Your task to perform on an android device: Search for vegetarian restaurants on Maps Image 0: 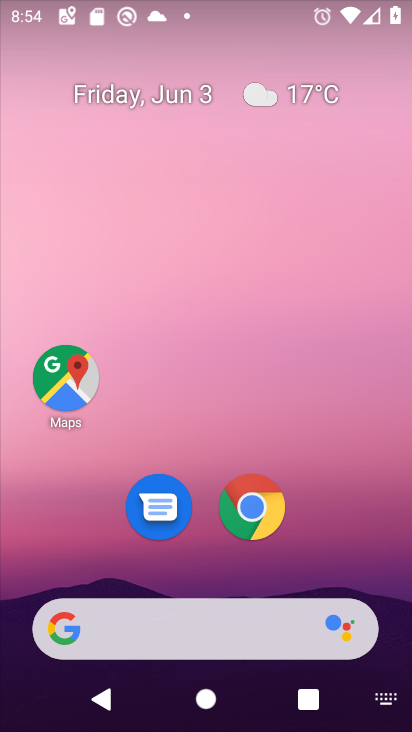
Step 0: click (86, 371)
Your task to perform on an android device: Search for vegetarian restaurants on Maps Image 1: 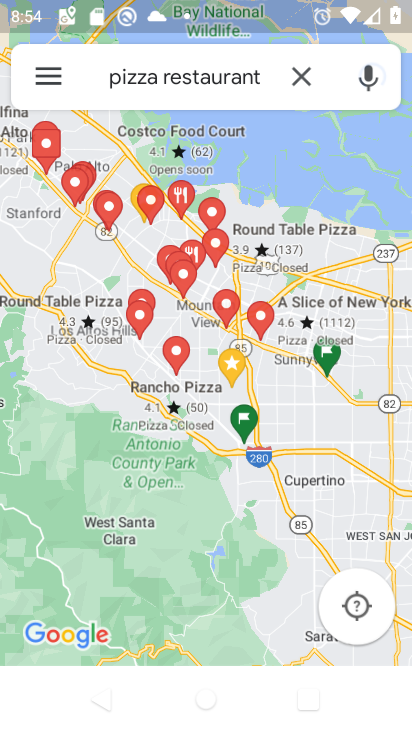
Step 1: click (239, 68)
Your task to perform on an android device: Search for vegetarian restaurants on Maps Image 2: 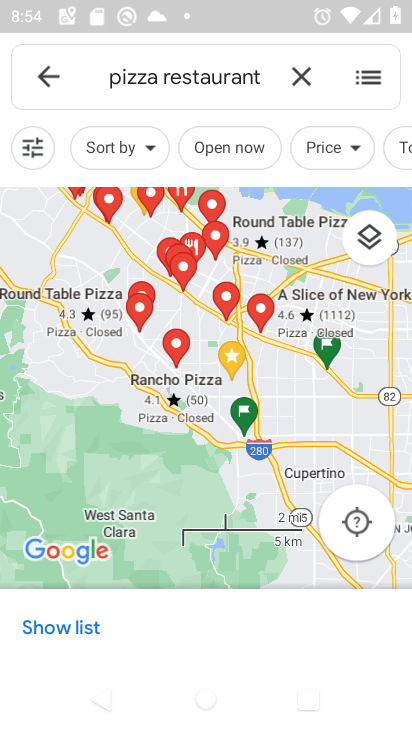
Step 2: click (299, 70)
Your task to perform on an android device: Search for vegetarian restaurants on Maps Image 3: 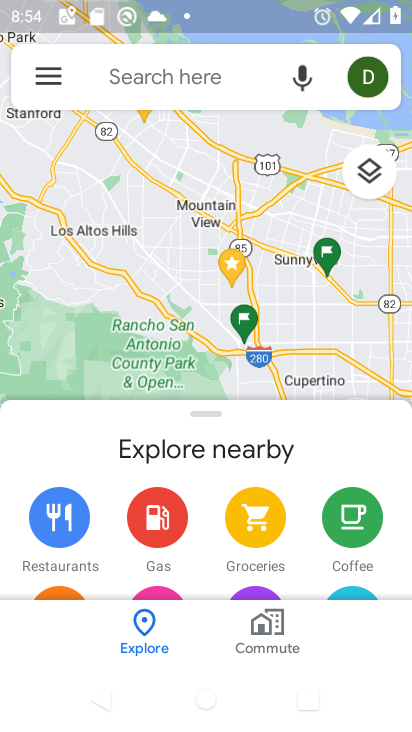
Step 3: click (202, 66)
Your task to perform on an android device: Search for vegetarian restaurants on Maps Image 4: 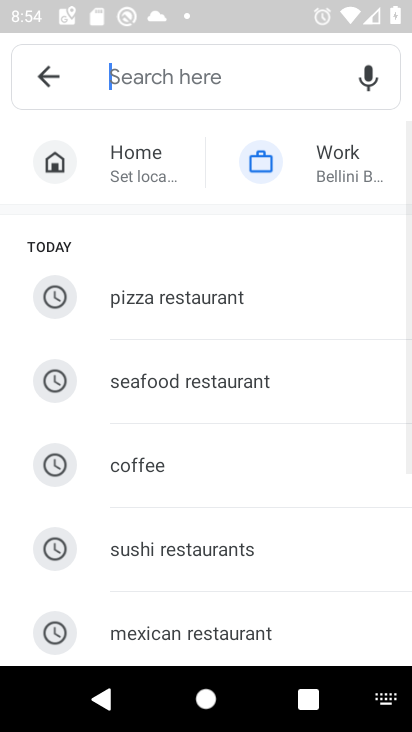
Step 4: drag from (238, 566) to (234, 120)
Your task to perform on an android device: Search for vegetarian restaurants on Maps Image 5: 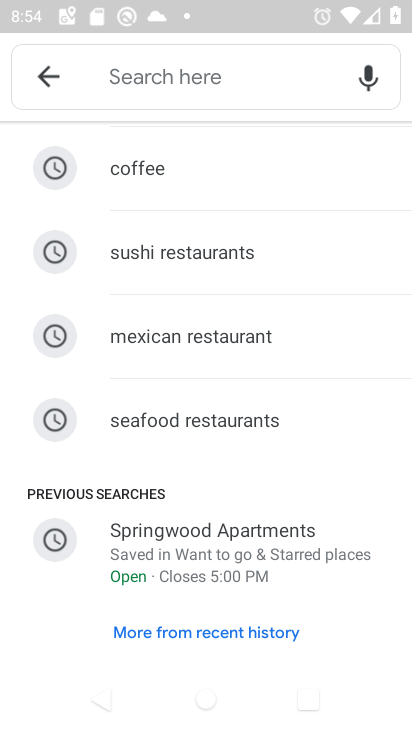
Step 5: click (206, 57)
Your task to perform on an android device: Search for vegetarian restaurants on Maps Image 6: 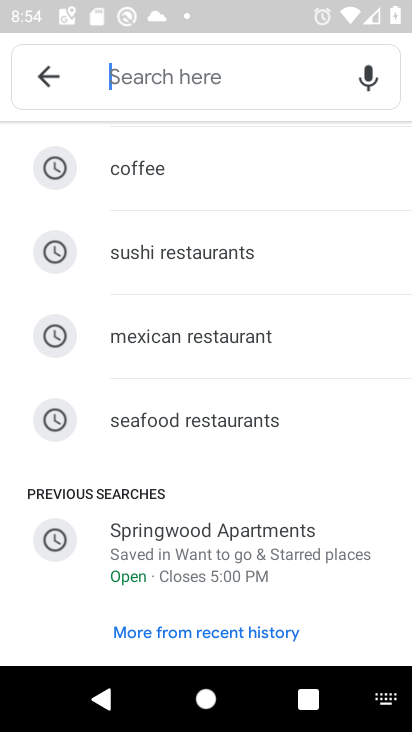
Step 6: type "vegetarian restaurants"
Your task to perform on an android device: Search for vegetarian restaurants on Maps Image 7: 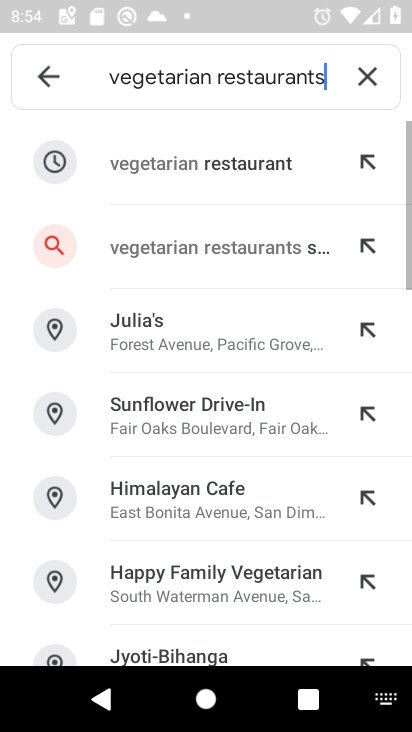
Step 7: click (255, 158)
Your task to perform on an android device: Search for vegetarian restaurants on Maps Image 8: 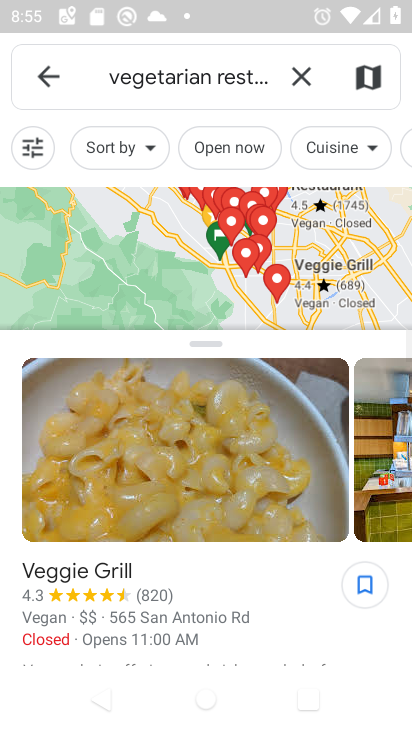
Step 8: task complete